Your task to perform on an android device: empty trash in google photos Image 0: 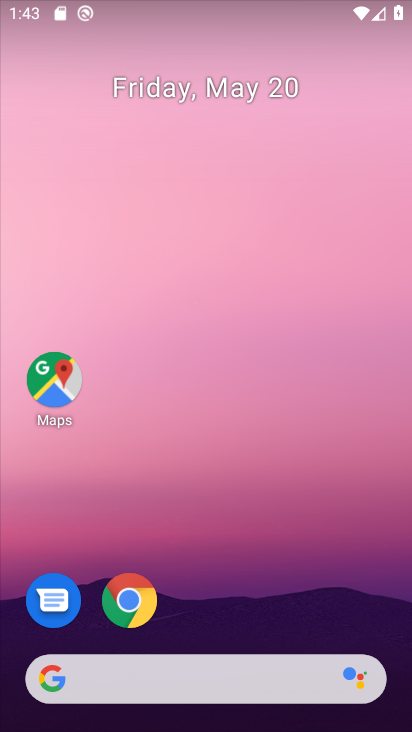
Step 0: press home button
Your task to perform on an android device: empty trash in google photos Image 1: 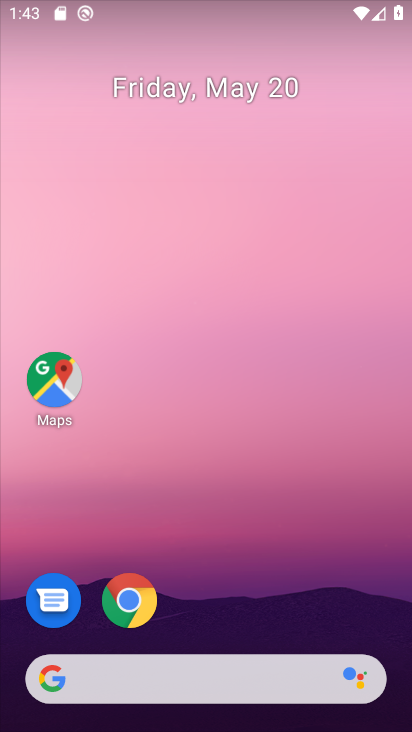
Step 1: drag from (312, 562) to (174, 15)
Your task to perform on an android device: empty trash in google photos Image 2: 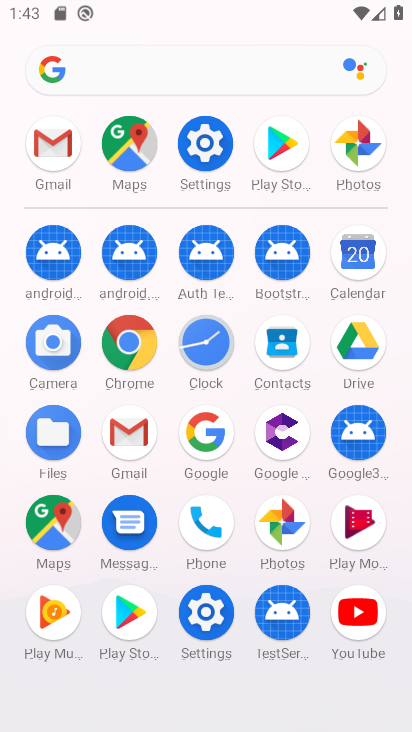
Step 2: click (287, 521)
Your task to perform on an android device: empty trash in google photos Image 3: 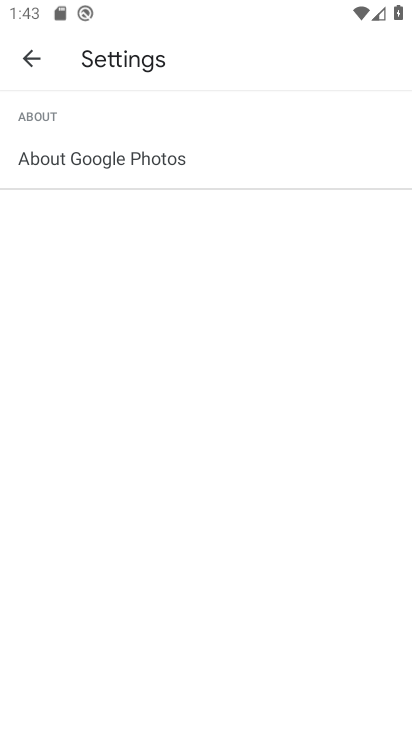
Step 3: click (30, 54)
Your task to perform on an android device: empty trash in google photos Image 4: 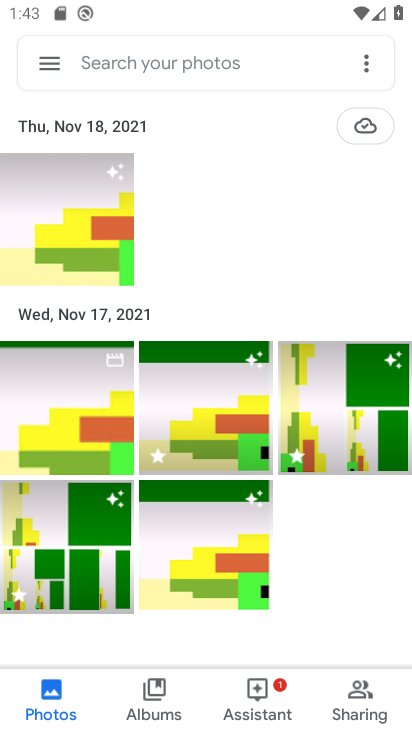
Step 4: click (43, 64)
Your task to perform on an android device: empty trash in google photos Image 5: 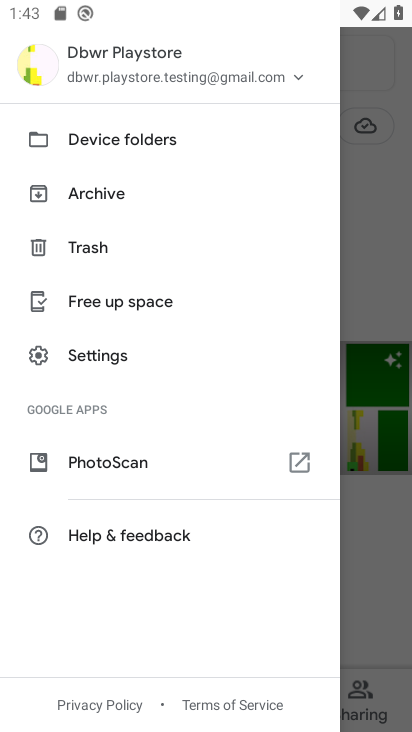
Step 5: click (109, 252)
Your task to perform on an android device: empty trash in google photos Image 6: 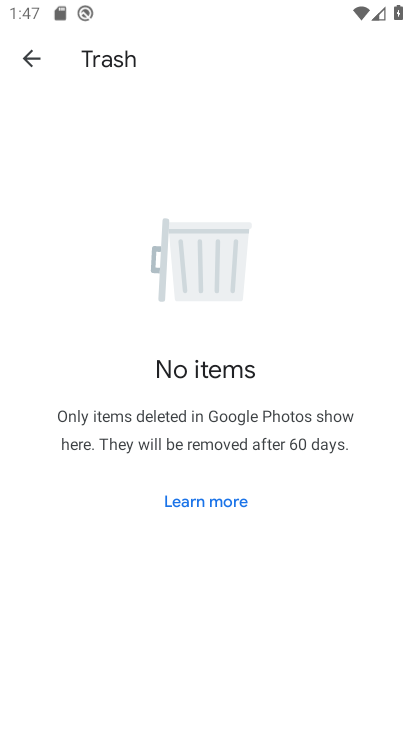
Step 6: task complete